Your task to perform on an android device: Open Google Maps and go to "Timeline" Image 0: 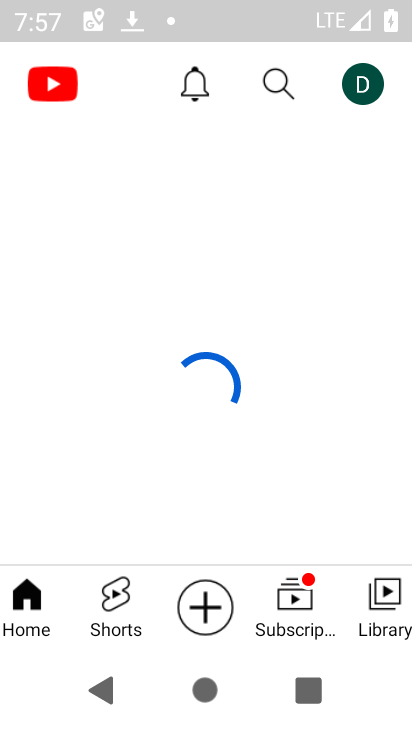
Step 0: press home button
Your task to perform on an android device: Open Google Maps and go to "Timeline" Image 1: 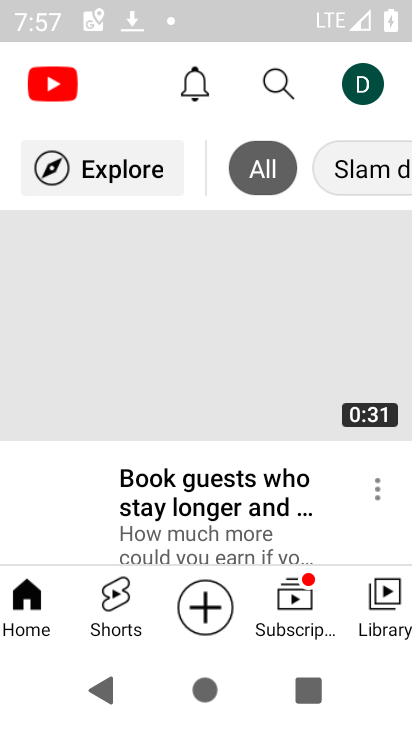
Step 1: press home button
Your task to perform on an android device: Open Google Maps and go to "Timeline" Image 2: 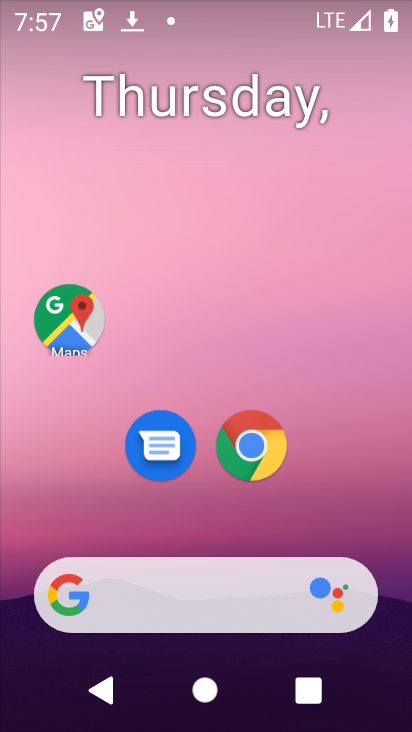
Step 2: drag from (174, 507) to (232, 227)
Your task to perform on an android device: Open Google Maps and go to "Timeline" Image 3: 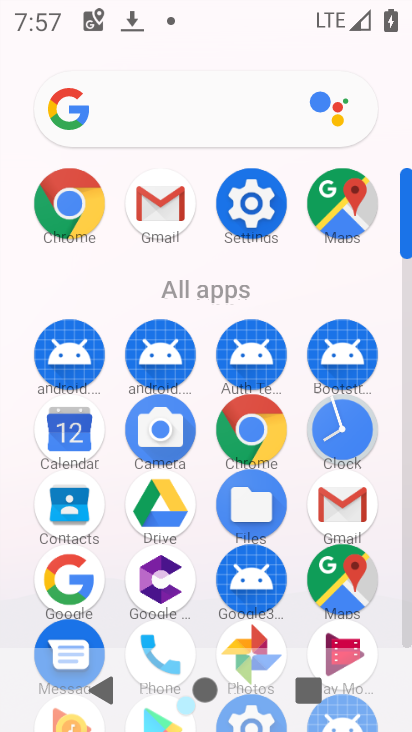
Step 3: click (356, 567)
Your task to perform on an android device: Open Google Maps and go to "Timeline" Image 4: 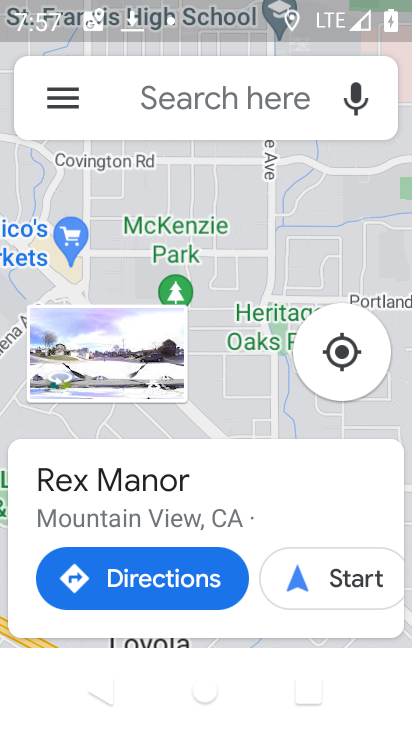
Step 4: click (48, 94)
Your task to perform on an android device: Open Google Maps and go to "Timeline" Image 5: 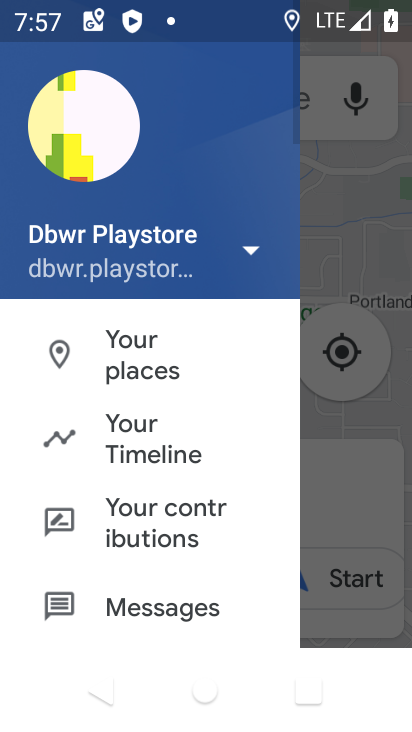
Step 5: click (149, 450)
Your task to perform on an android device: Open Google Maps and go to "Timeline" Image 6: 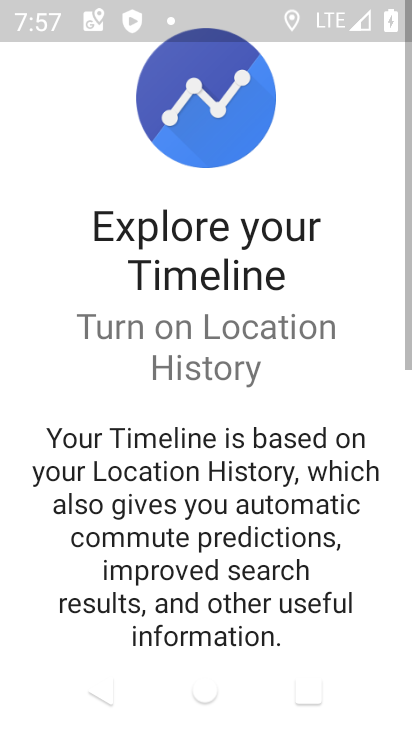
Step 6: drag from (216, 543) to (285, 111)
Your task to perform on an android device: Open Google Maps and go to "Timeline" Image 7: 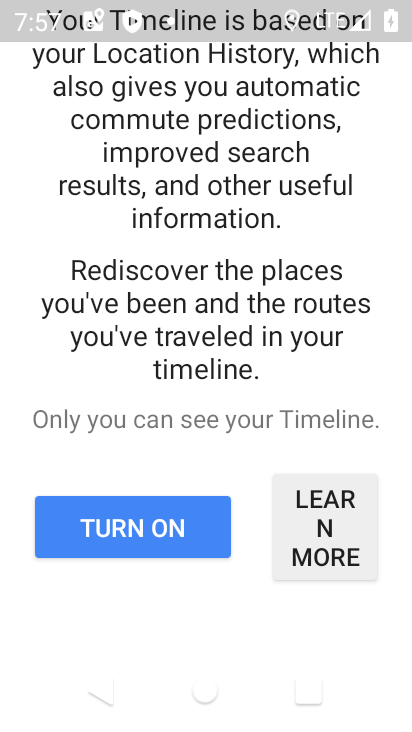
Step 7: click (186, 540)
Your task to perform on an android device: Open Google Maps and go to "Timeline" Image 8: 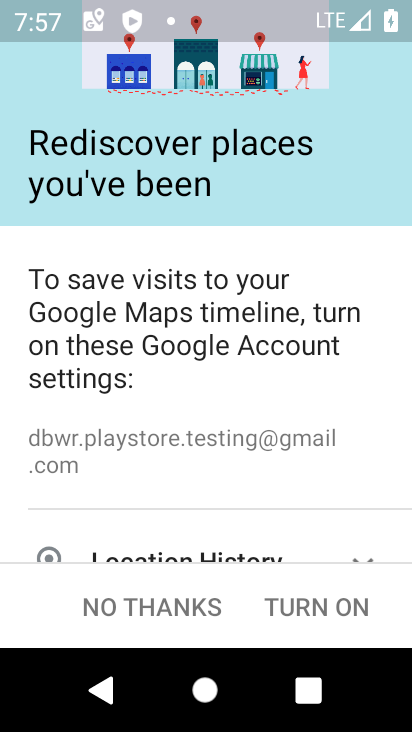
Step 8: click (315, 613)
Your task to perform on an android device: Open Google Maps and go to "Timeline" Image 9: 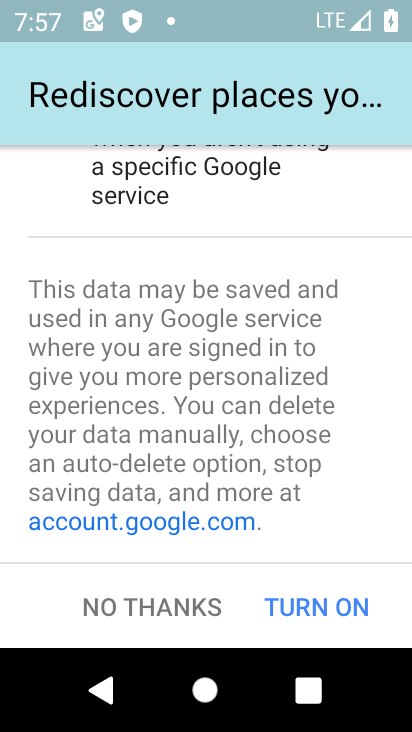
Step 9: click (344, 599)
Your task to perform on an android device: Open Google Maps and go to "Timeline" Image 10: 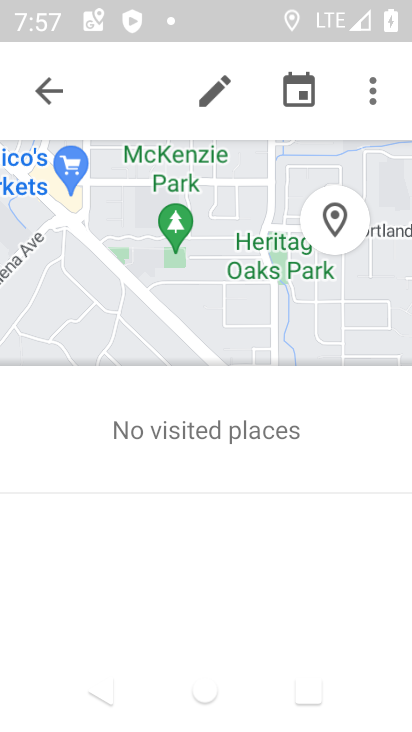
Step 10: task complete